Your task to perform on an android device: Open calendar and show me the third week of next month Image 0: 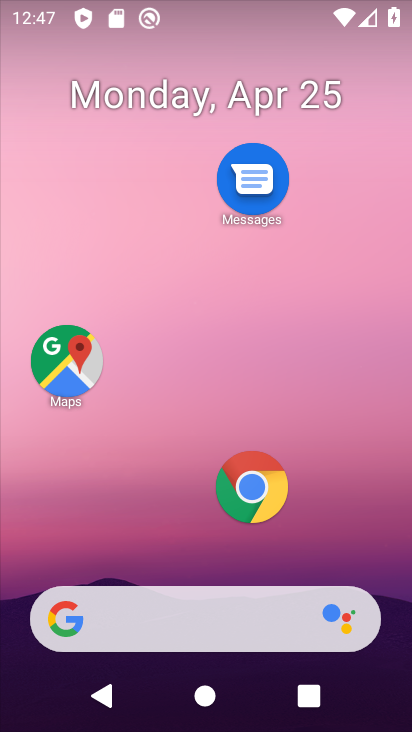
Step 0: drag from (278, 580) to (300, 97)
Your task to perform on an android device: Open calendar and show me the third week of next month Image 1: 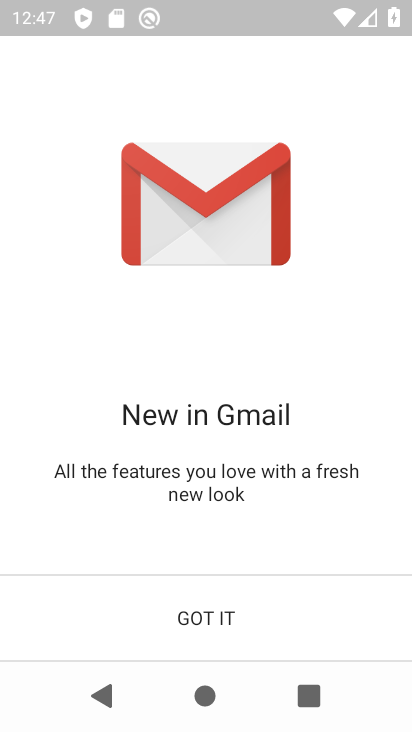
Step 1: press home button
Your task to perform on an android device: Open calendar and show me the third week of next month Image 2: 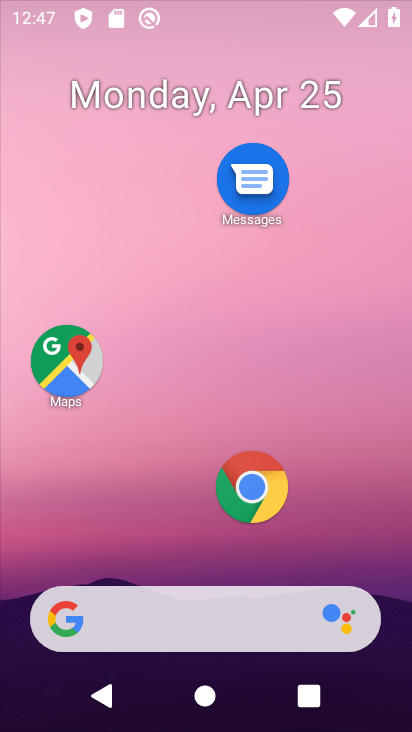
Step 2: drag from (114, 372) to (126, 39)
Your task to perform on an android device: Open calendar and show me the third week of next month Image 3: 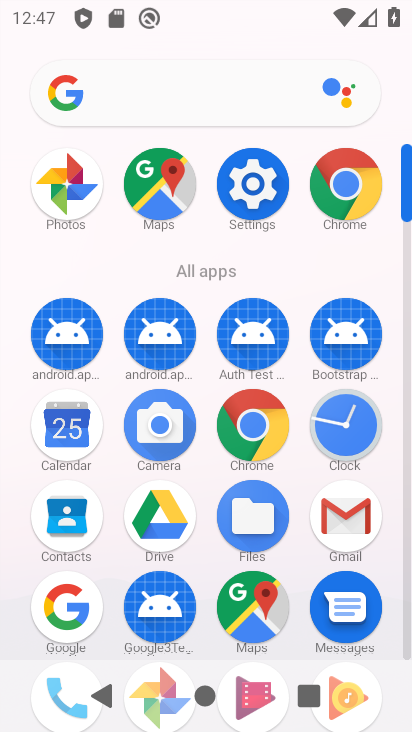
Step 3: click (73, 441)
Your task to perform on an android device: Open calendar and show me the third week of next month Image 4: 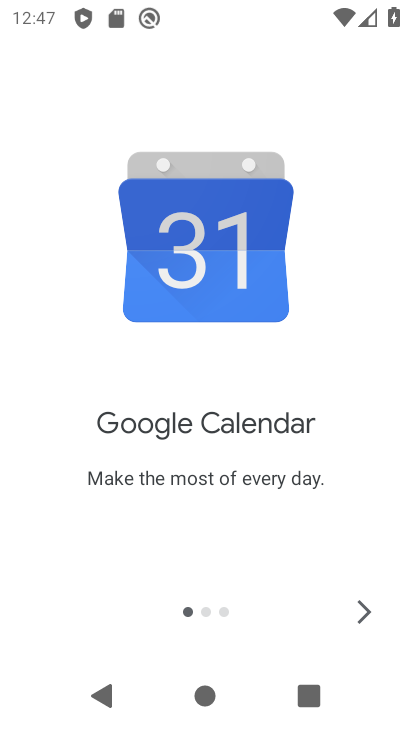
Step 4: click (369, 615)
Your task to perform on an android device: Open calendar and show me the third week of next month Image 5: 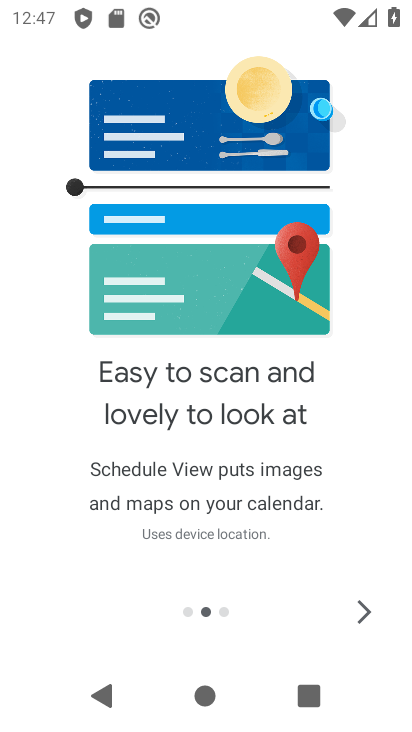
Step 5: click (370, 612)
Your task to perform on an android device: Open calendar and show me the third week of next month Image 6: 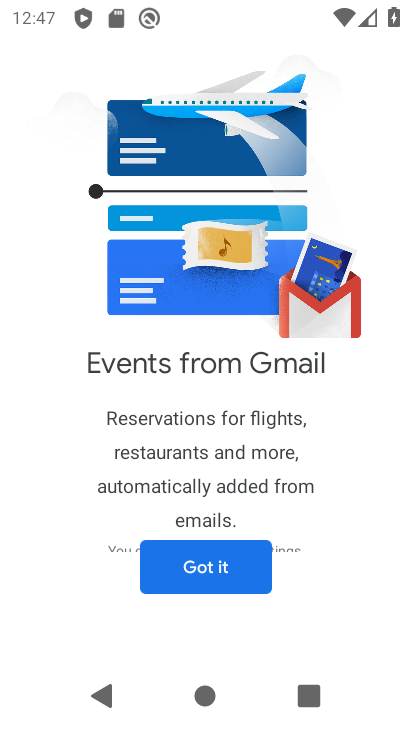
Step 6: click (227, 568)
Your task to perform on an android device: Open calendar and show me the third week of next month Image 7: 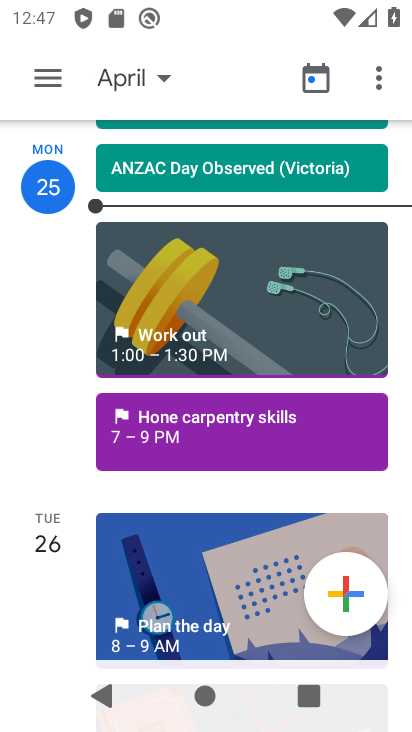
Step 7: click (47, 82)
Your task to perform on an android device: Open calendar and show me the third week of next month Image 8: 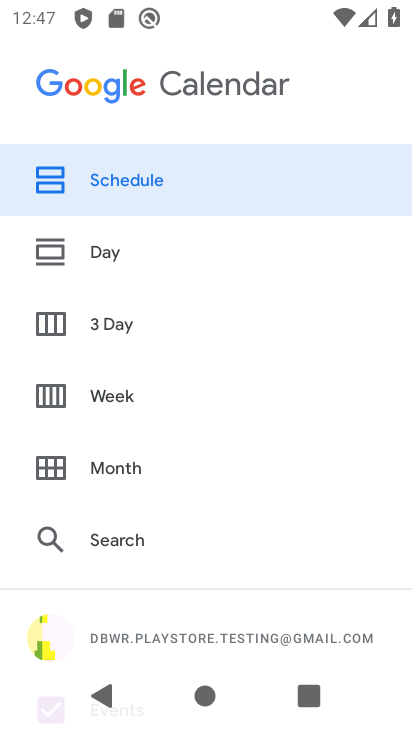
Step 8: drag from (405, 380) to (86, 417)
Your task to perform on an android device: Open calendar and show me the third week of next month Image 9: 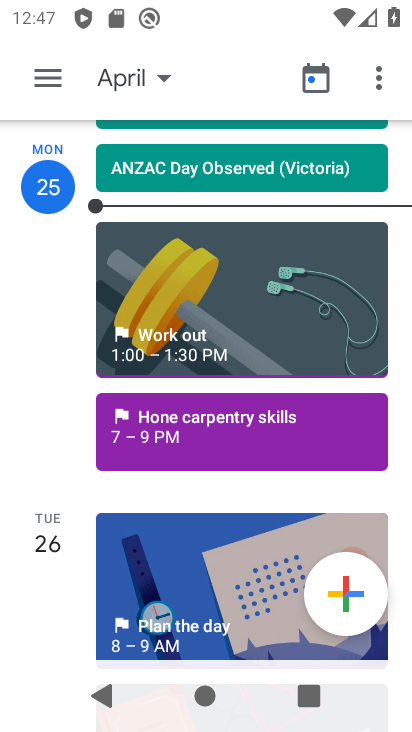
Step 9: click (164, 69)
Your task to perform on an android device: Open calendar and show me the third week of next month Image 10: 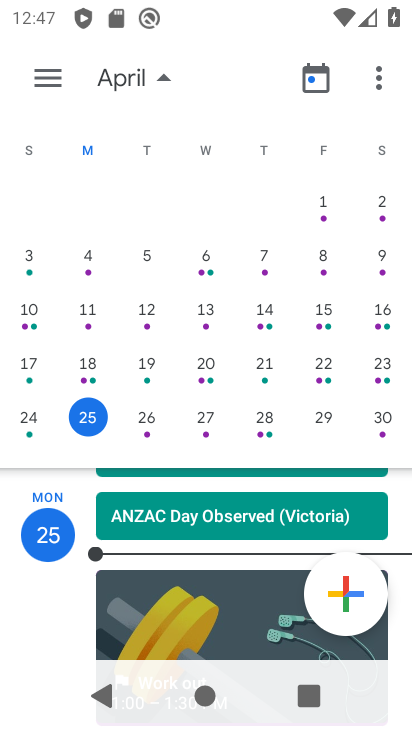
Step 10: drag from (372, 323) to (0, 339)
Your task to perform on an android device: Open calendar and show me the third week of next month Image 11: 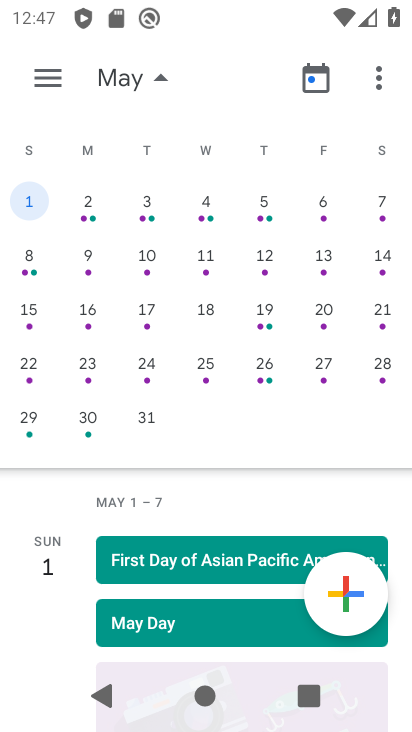
Step 11: click (204, 307)
Your task to perform on an android device: Open calendar and show me the third week of next month Image 12: 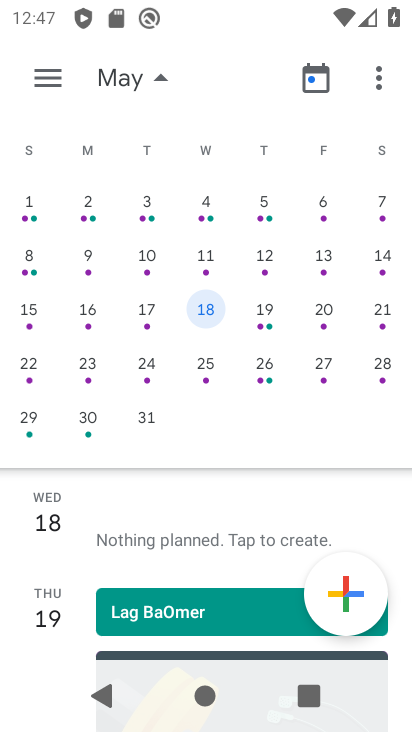
Step 12: click (49, 76)
Your task to perform on an android device: Open calendar and show me the third week of next month Image 13: 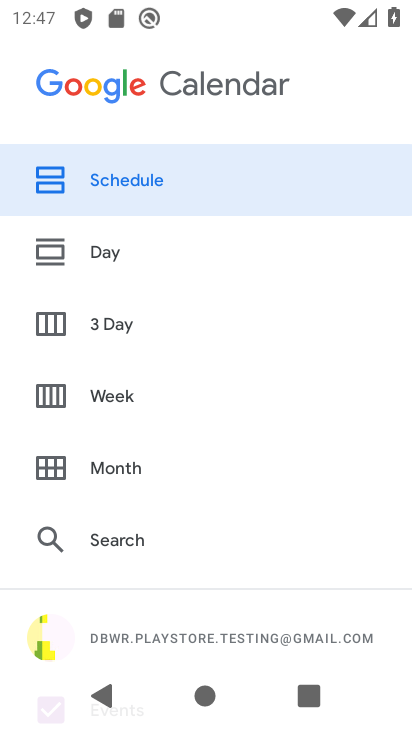
Step 13: click (140, 416)
Your task to perform on an android device: Open calendar and show me the third week of next month Image 14: 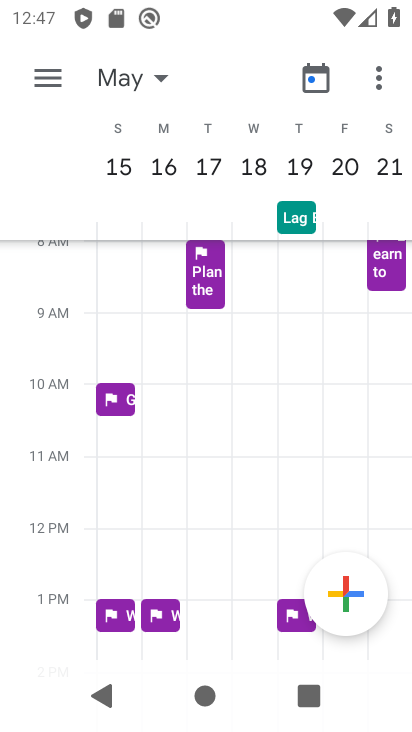
Step 14: task complete